Your task to perform on an android device: Open Reddit.com Image 0: 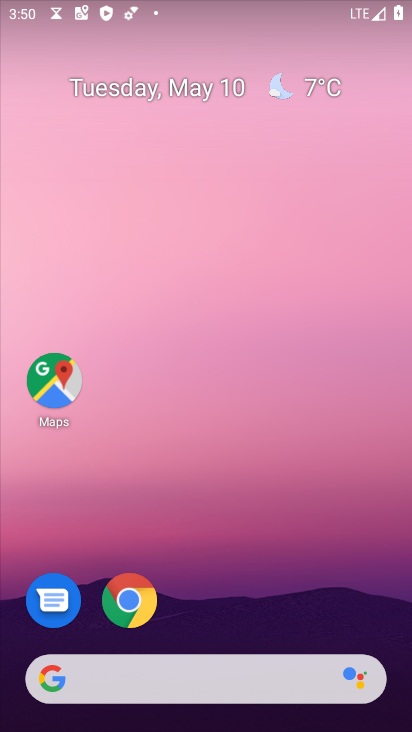
Step 0: drag from (256, 585) to (345, 273)
Your task to perform on an android device: Open Reddit.com Image 1: 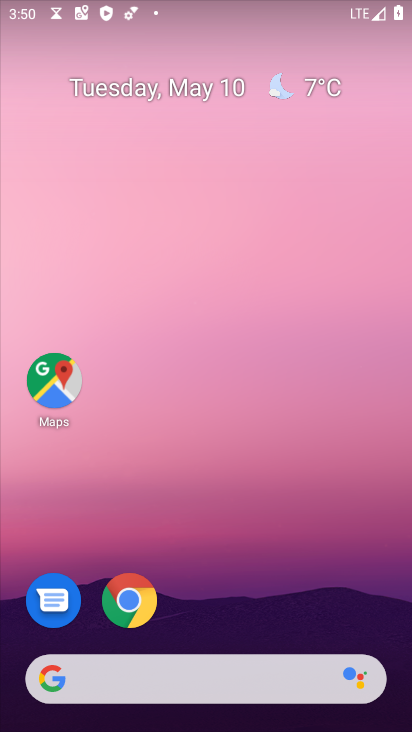
Step 1: click (150, 656)
Your task to perform on an android device: Open Reddit.com Image 2: 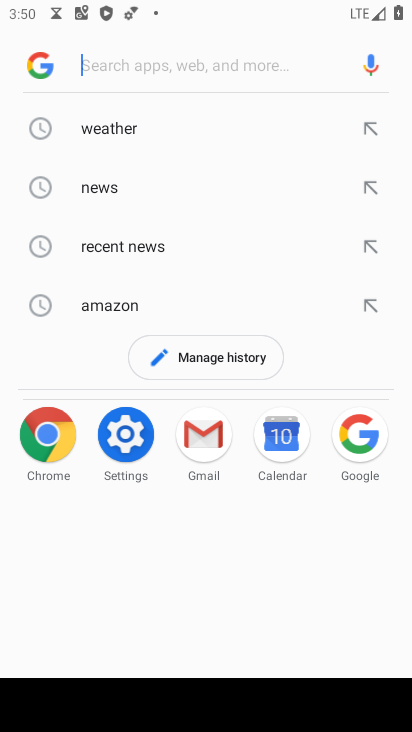
Step 2: click (171, 51)
Your task to perform on an android device: Open Reddit.com Image 3: 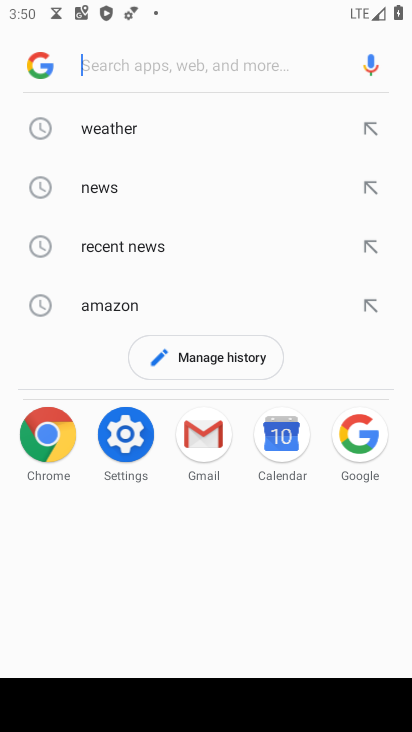
Step 3: type "reddit.com"
Your task to perform on an android device: Open Reddit.com Image 4: 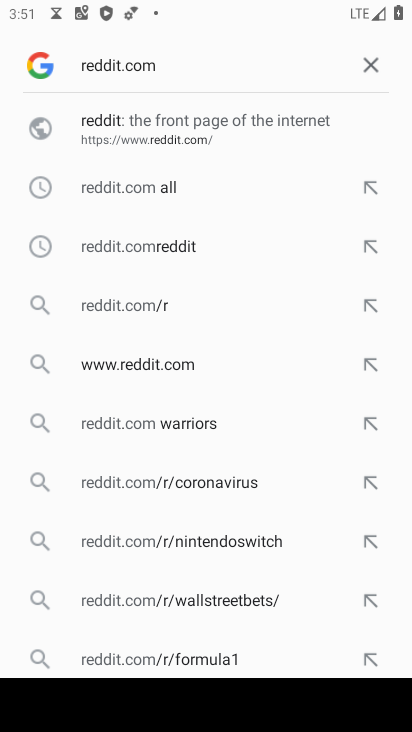
Step 4: drag from (208, 595) to (248, 373)
Your task to perform on an android device: Open Reddit.com Image 5: 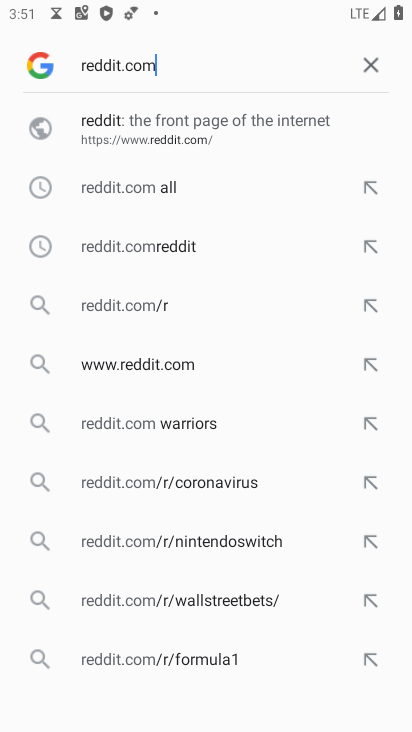
Step 5: click (202, 134)
Your task to perform on an android device: Open Reddit.com Image 6: 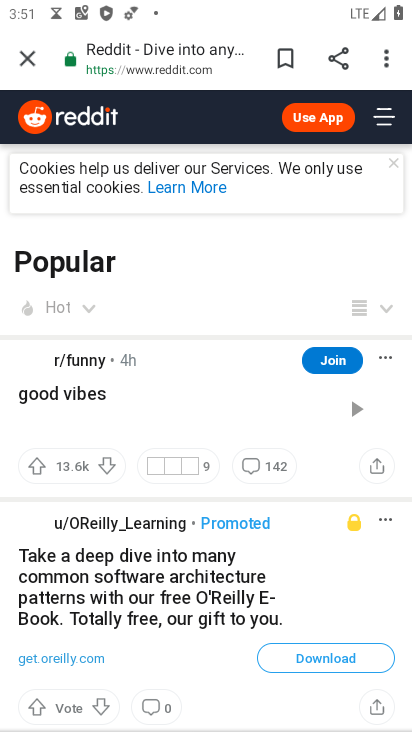
Step 6: task complete